Your task to perform on an android device: Go to privacy settings Image 0: 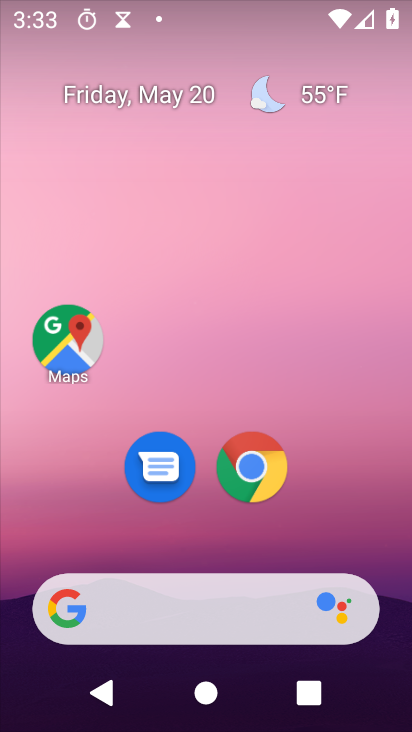
Step 0: click (249, 470)
Your task to perform on an android device: Go to privacy settings Image 1: 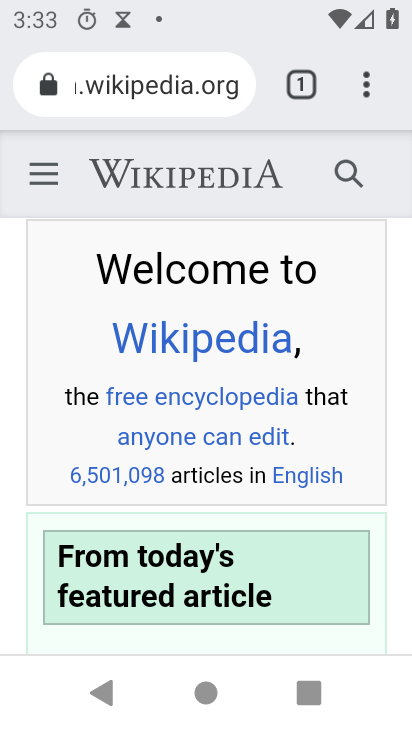
Step 1: click (370, 83)
Your task to perform on an android device: Go to privacy settings Image 2: 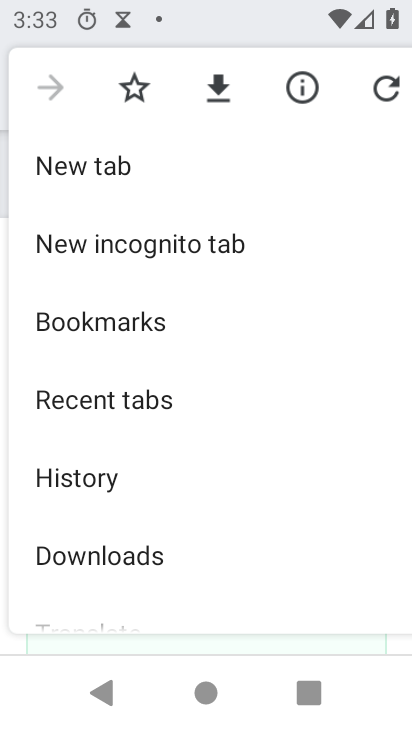
Step 2: drag from (192, 577) to (193, 221)
Your task to perform on an android device: Go to privacy settings Image 3: 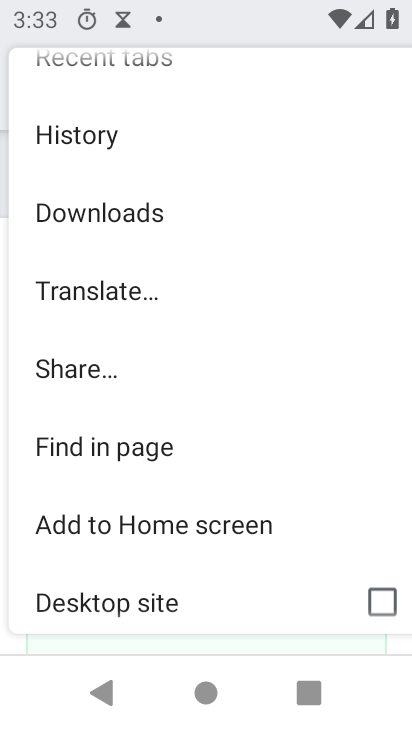
Step 3: drag from (117, 576) to (140, 243)
Your task to perform on an android device: Go to privacy settings Image 4: 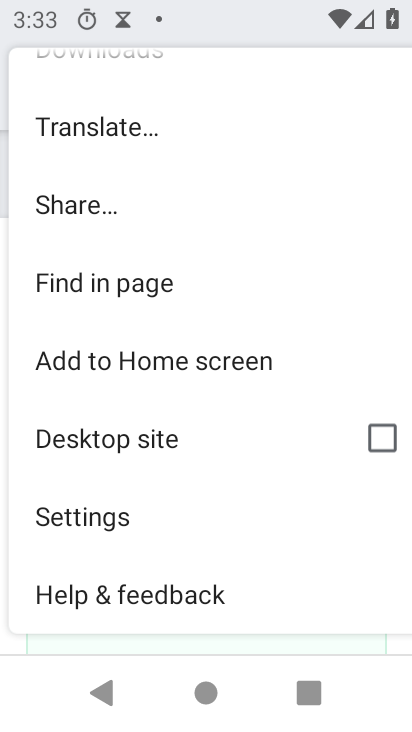
Step 4: click (113, 516)
Your task to perform on an android device: Go to privacy settings Image 5: 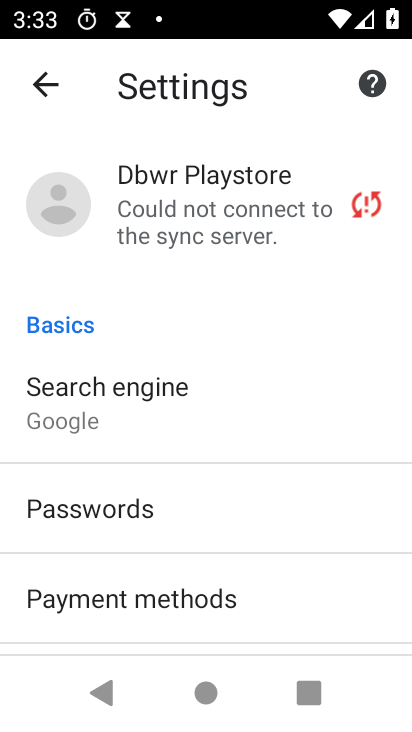
Step 5: drag from (120, 531) to (116, 247)
Your task to perform on an android device: Go to privacy settings Image 6: 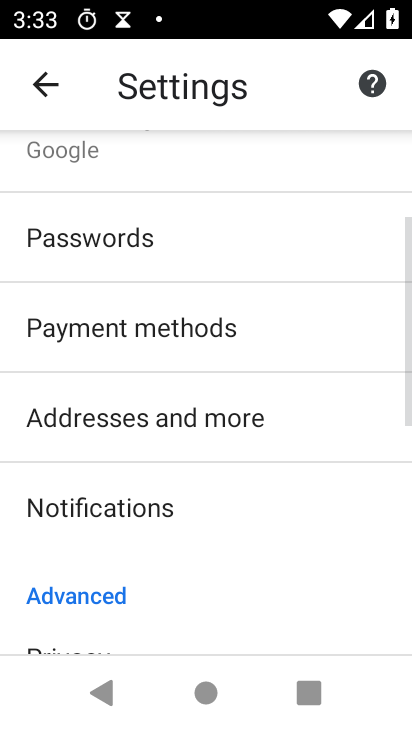
Step 6: drag from (146, 533) to (142, 284)
Your task to perform on an android device: Go to privacy settings Image 7: 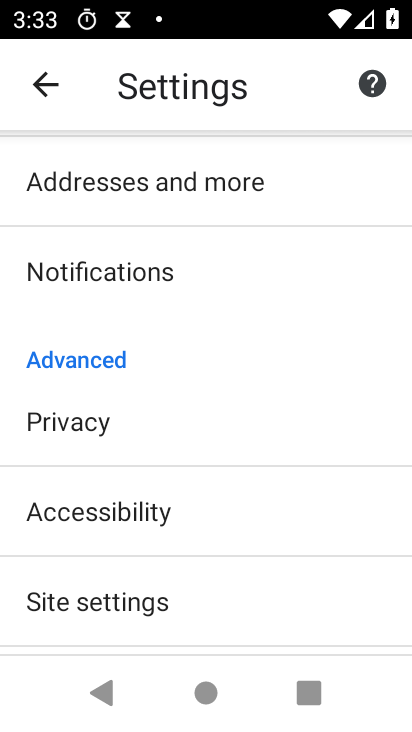
Step 7: click (110, 431)
Your task to perform on an android device: Go to privacy settings Image 8: 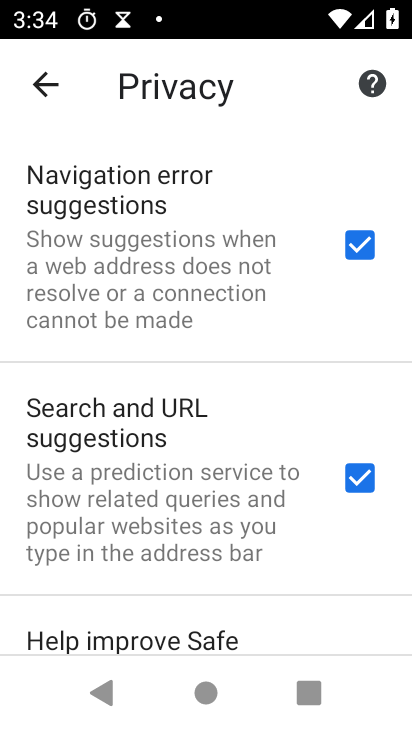
Step 8: task complete